Your task to perform on an android device: turn off translation in the chrome app Image 0: 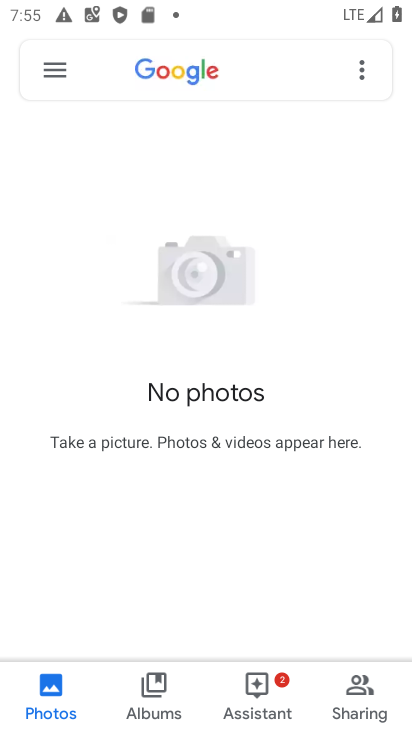
Step 0: press home button
Your task to perform on an android device: turn off translation in the chrome app Image 1: 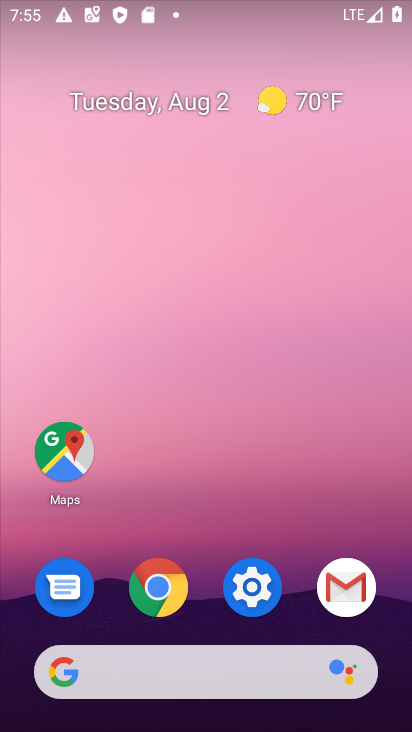
Step 1: click (157, 591)
Your task to perform on an android device: turn off translation in the chrome app Image 2: 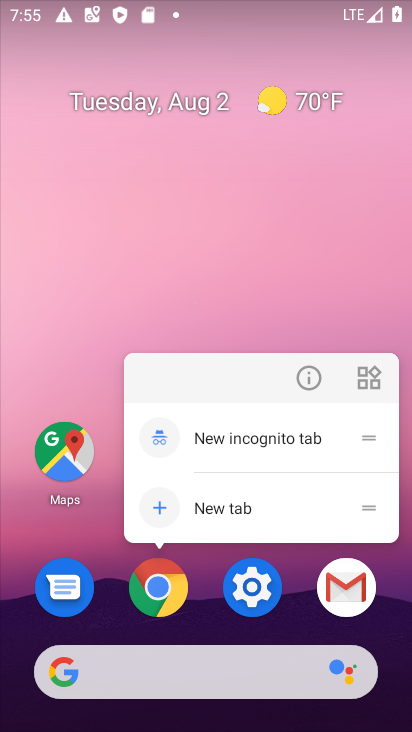
Step 2: click (148, 584)
Your task to perform on an android device: turn off translation in the chrome app Image 3: 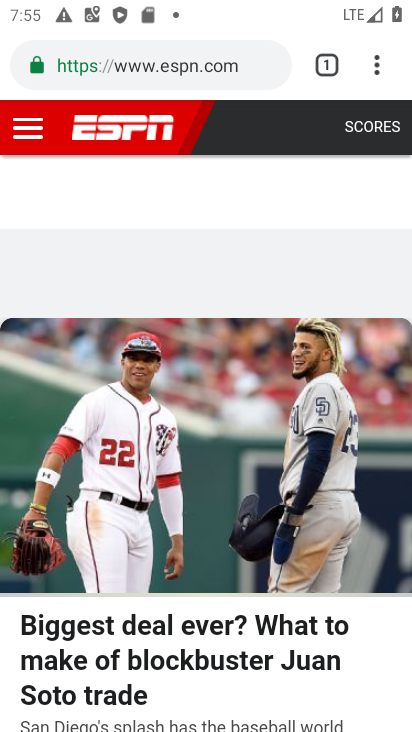
Step 3: click (376, 78)
Your task to perform on an android device: turn off translation in the chrome app Image 4: 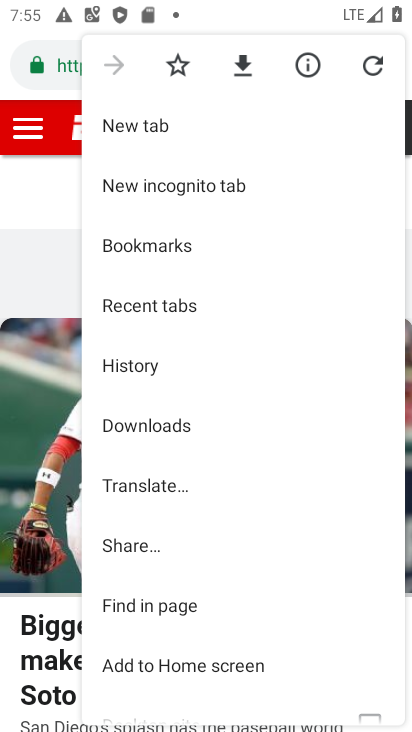
Step 4: drag from (162, 675) to (144, 489)
Your task to perform on an android device: turn off translation in the chrome app Image 5: 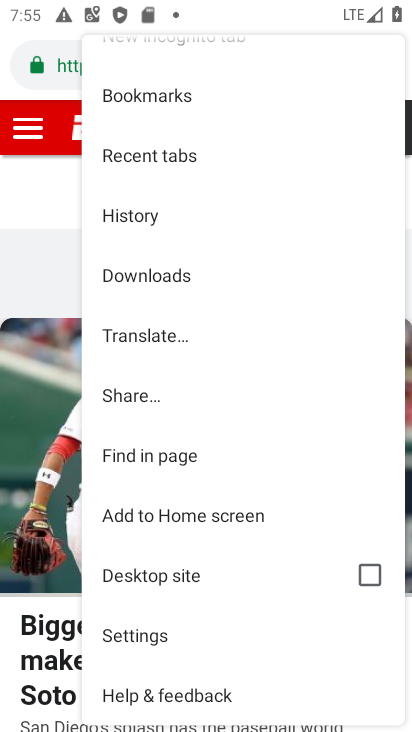
Step 5: click (137, 642)
Your task to perform on an android device: turn off translation in the chrome app Image 6: 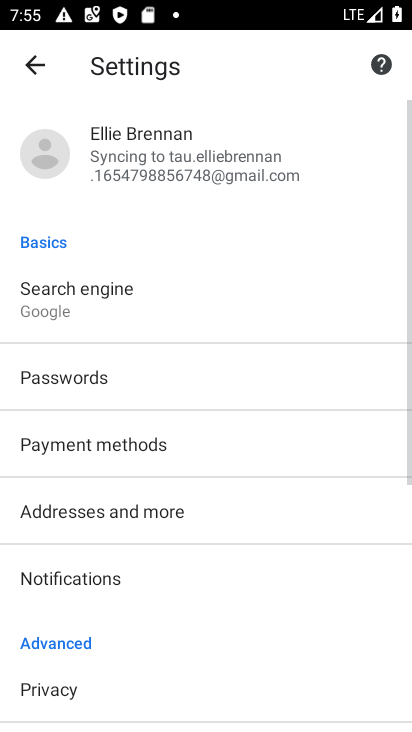
Step 6: drag from (135, 658) to (129, 432)
Your task to perform on an android device: turn off translation in the chrome app Image 7: 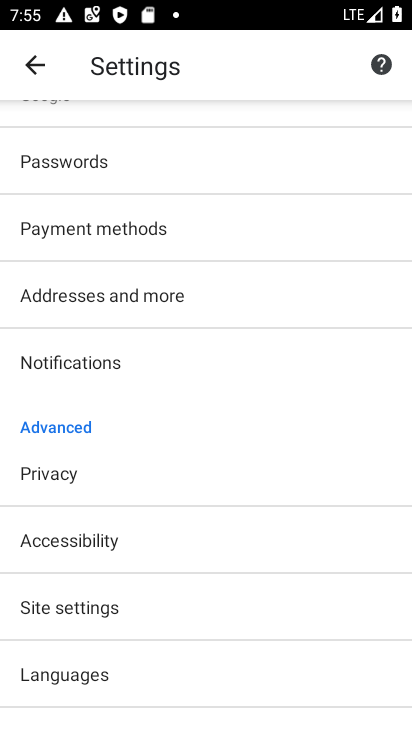
Step 7: click (88, 668)
Your task to perform on an android device: turn off translation in the chrome app Image 8: 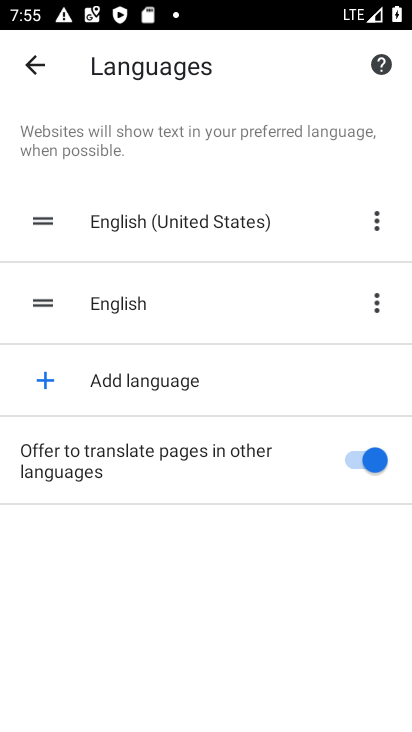
Step 8: click (268, 443)
Your task to perform on an android device: turn off translation in the chrome app Image 9: 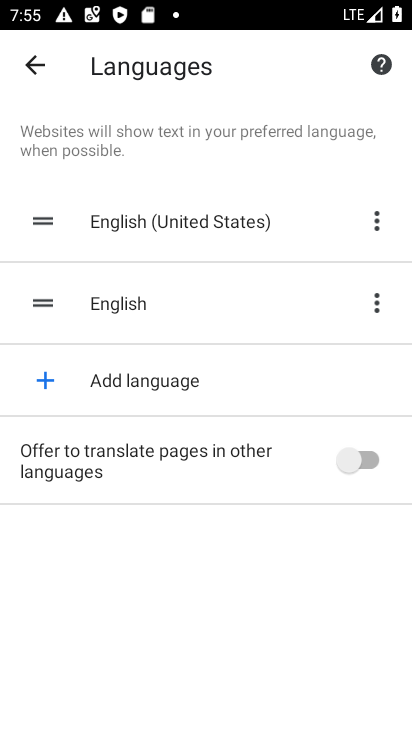
Step 9: task complete